Your task to perform on an android device: refresh tabs in the chrome app Image 0: 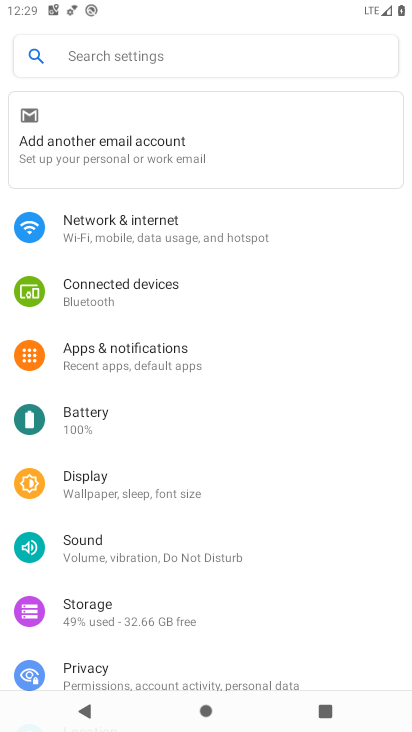
Step 0: press home button
Your task to perform on an android device: refresh tabs in the chrome app Image 1: 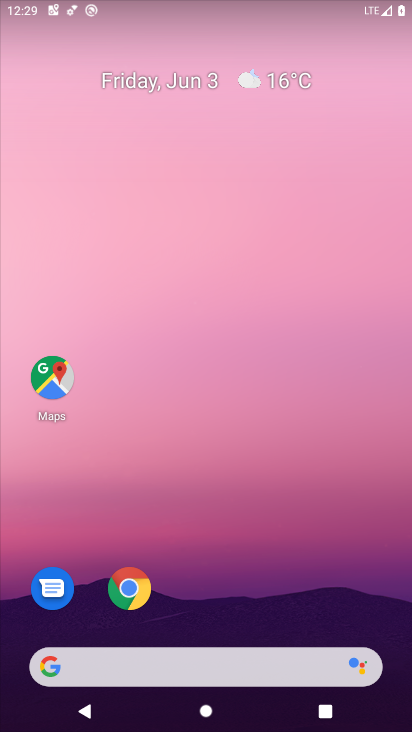
Step 1: drag from (189, 633) to (208, 149)
Your task to perform on an android device: refresh tabs in the chrome app Image 2: 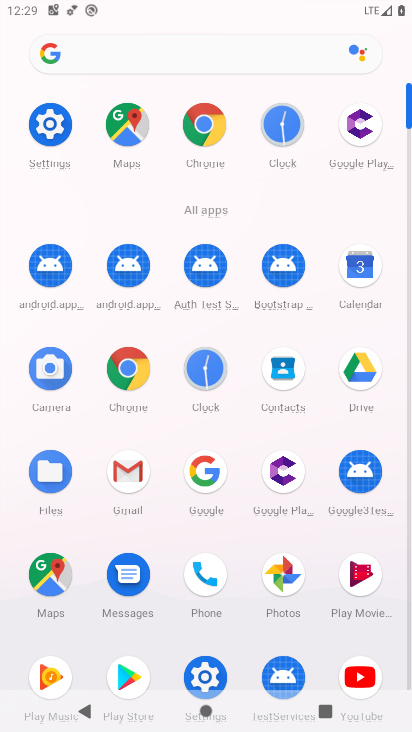
Step 2: click (203, 130)
Your task to perform on an android device: refresh tabs in the chrome app Image 3: 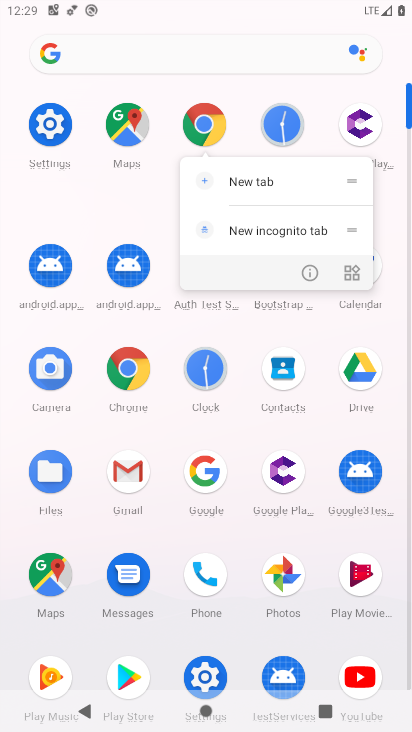
Step 3: click (321, 274)
Your task to perform on an android device: refresh tabs in the chrome app Image 4: 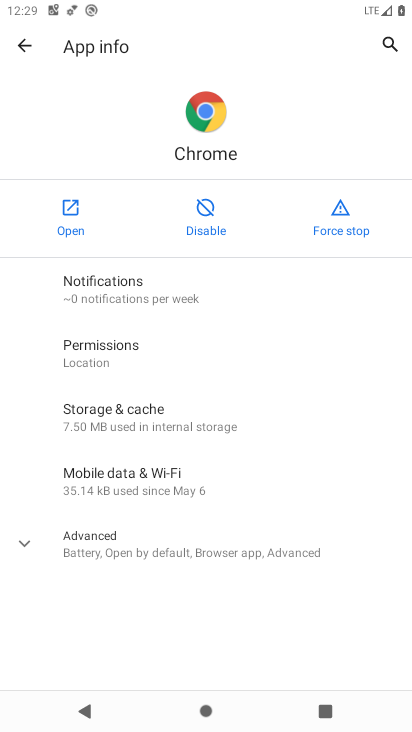
Step 4: click (62, 204)
Your task to perform on an android device: refresh tabs in the chrome app Image 5: 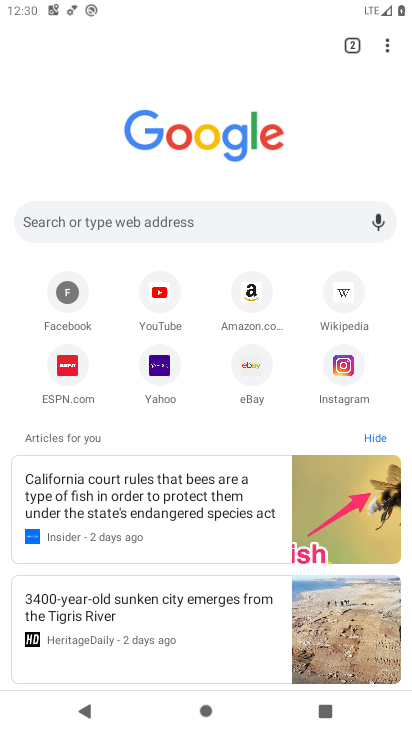
Step 5: drag from (225, 468) to (266, 241)
Your task to perform on an android device: refresh tabs in the chrome app Image 6: 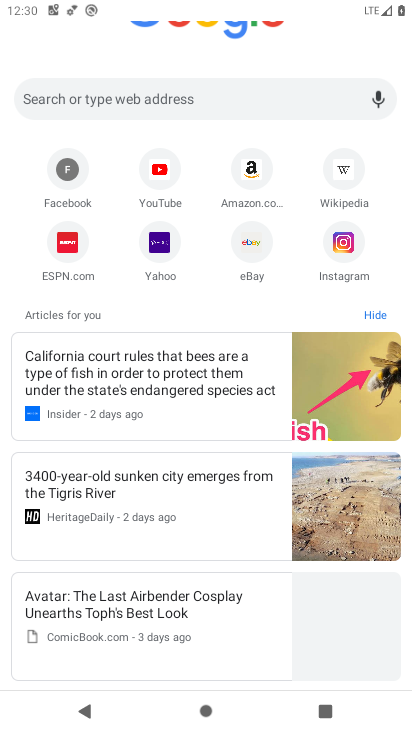
Step 6: drag from (277, 262) to (271, 726)
Your task to perform on an android device: refresh tabs in the chrome app Image 7: 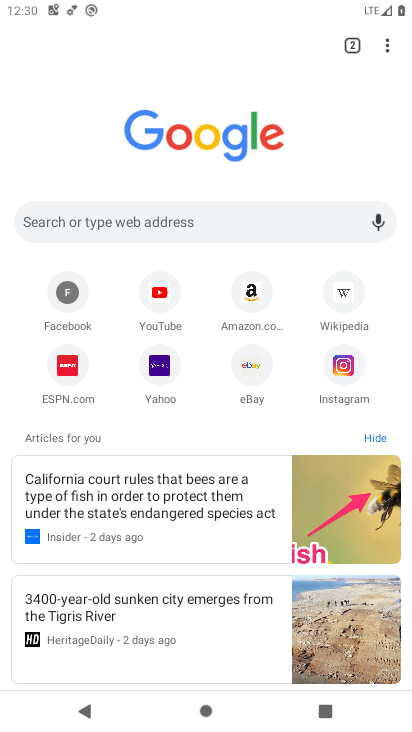
Step 7: click (380, 52)
Your task to perform on an android device: refresh tabs in the chrome app Image 8: 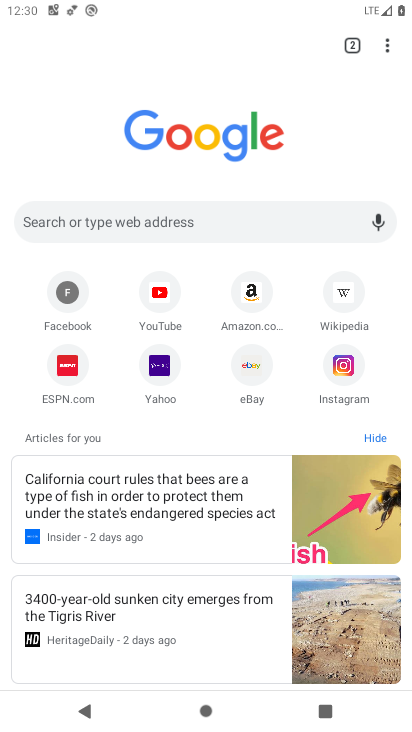
Step 8: task complete